Your task to perform on an android device: Go to Yahoo.com Image 0: 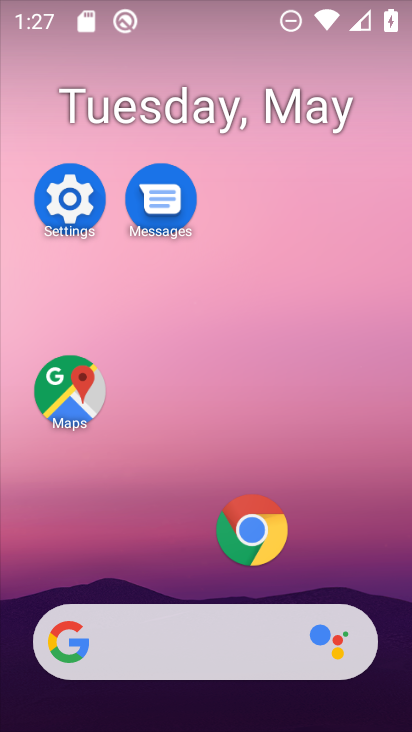
Step 0: drag from (168, 543) to (309, 147)
Your task to perform on an android device: Go to Yahoo.com Image 1: 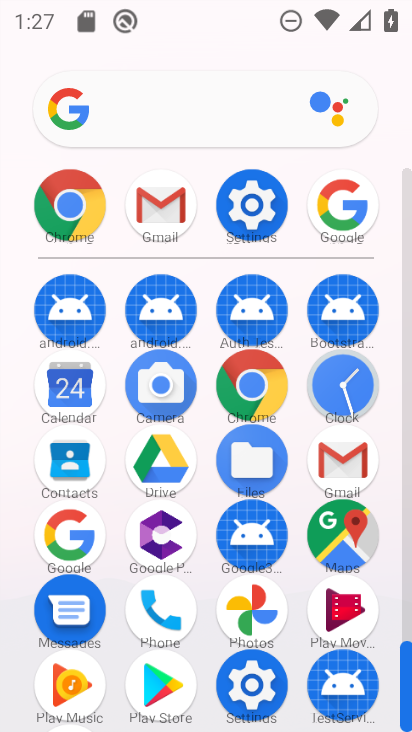
Step 1: click (255, 388)
Your task to perform on an android device: Go to Yahoo.com Image 2: 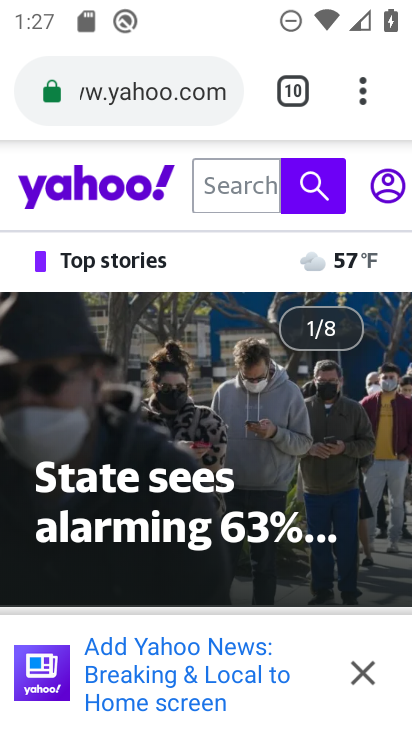
Step 2: click (293, 91)
Your task to perform on an android device: Go to Yahoo.com Image 3: 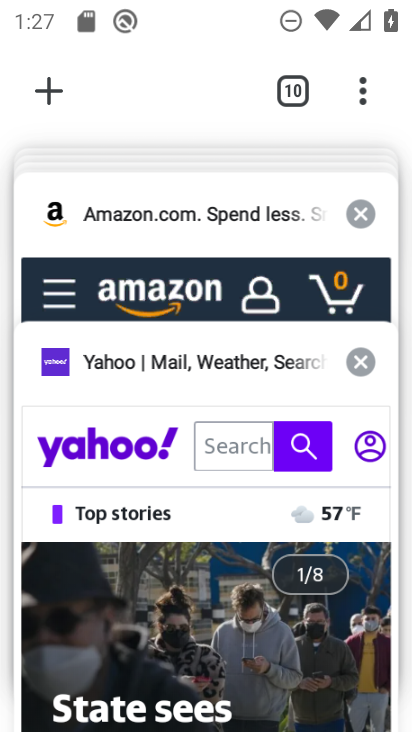
Step 3: click (57, 81)
Your task to perform on an android device: Go to Yahoo.com Image 4: 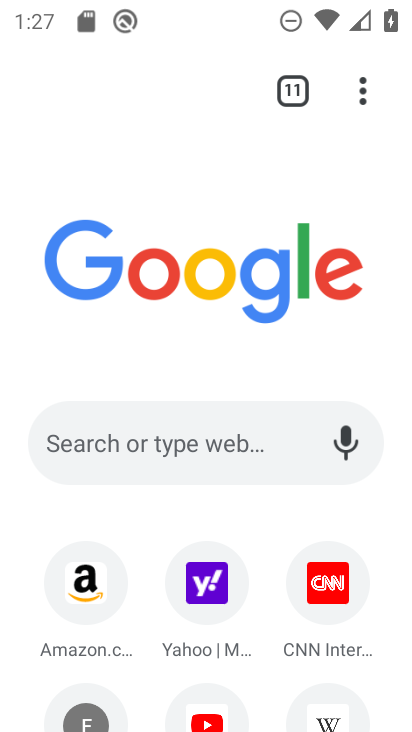
Step 4: click (226, 587)
Your task to perform on an android device: Go to Yahoo.com Image 5: 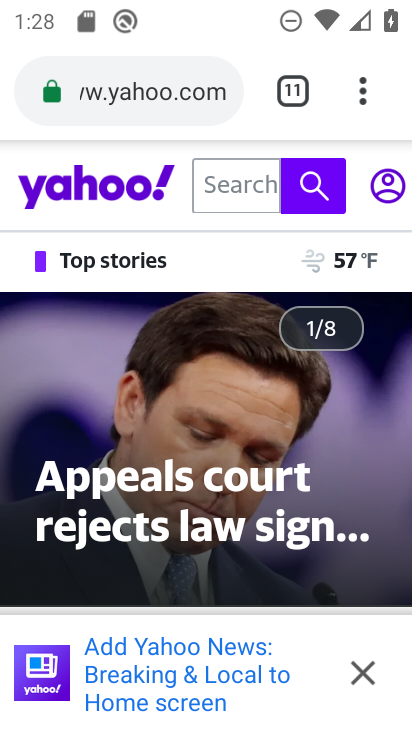
Step 5: task complete